Your task to perform on an android device: What is the recent news? Image 0: 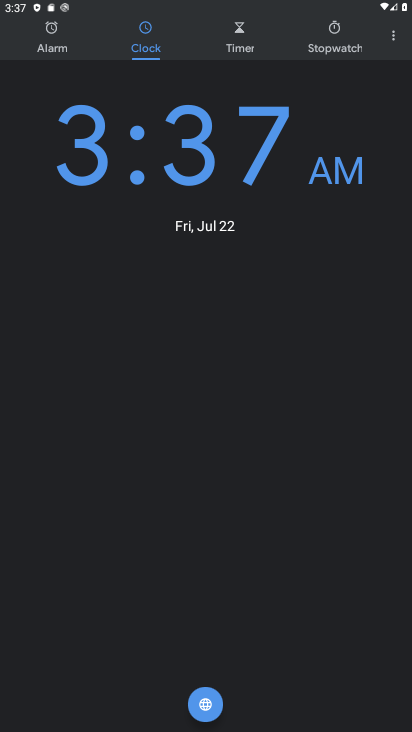
Step 0: press home button
Your task to perform on an android device: What is the recent news? Image 1: 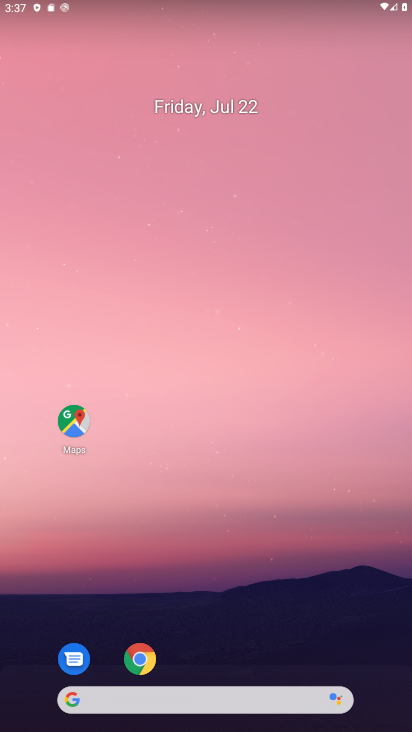
Step 1: drag from (248, 686) to (264, 345)
Your task to perform on an android device: What is the recent news? Image 2: 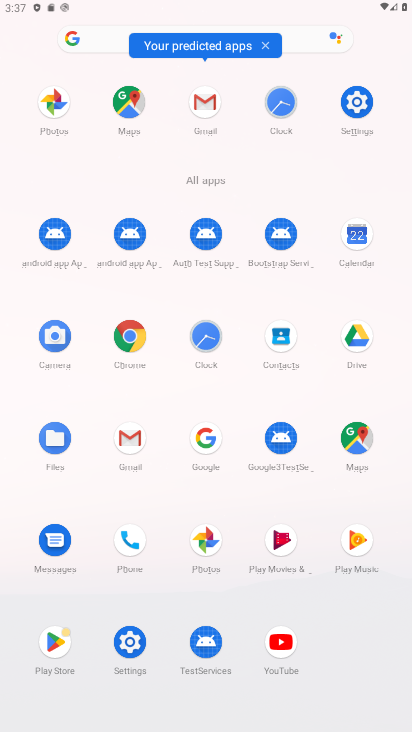
Step 2: click (207, 443)
Your task to perform on an android device: What is the recent news? Image 3: 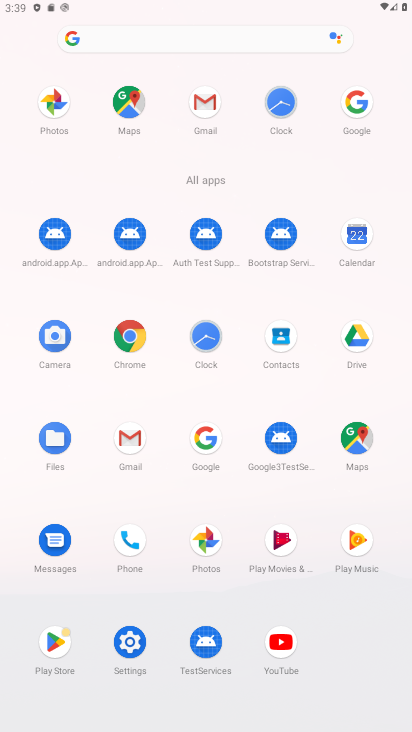
Step 3: click (207, 431)
Your task to perform on an android device: What is the recent news? Image 4: 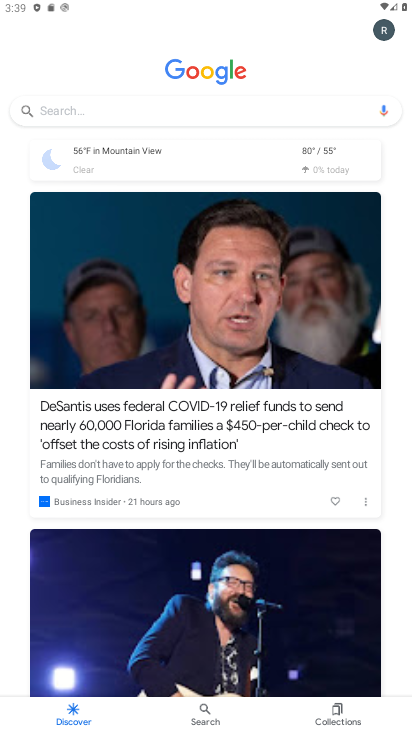
Step 4: click (220, 108)
Your task to perform on an android device: What is the recent news? Image 5: 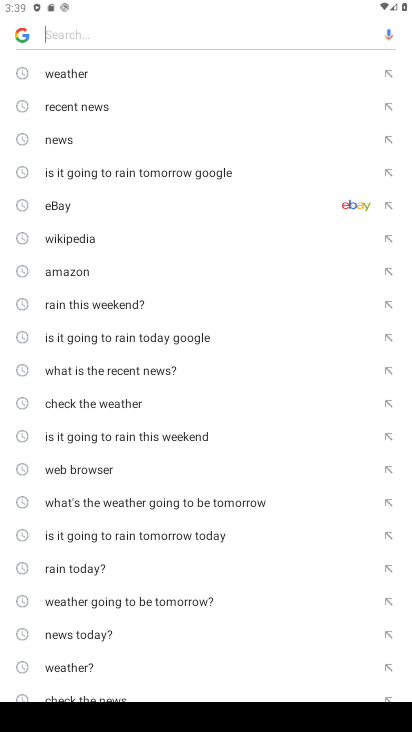
Step 5: click (56, 113)
Your task to perform on an android device: What is the recent news? Image 6: 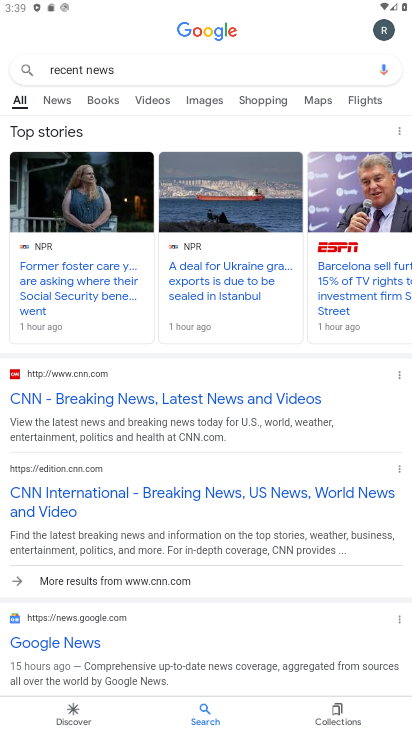
Step 6: task complete